Your task to perform on an android device: open app "HBO Max: Stream TV & Movies" Image 0: 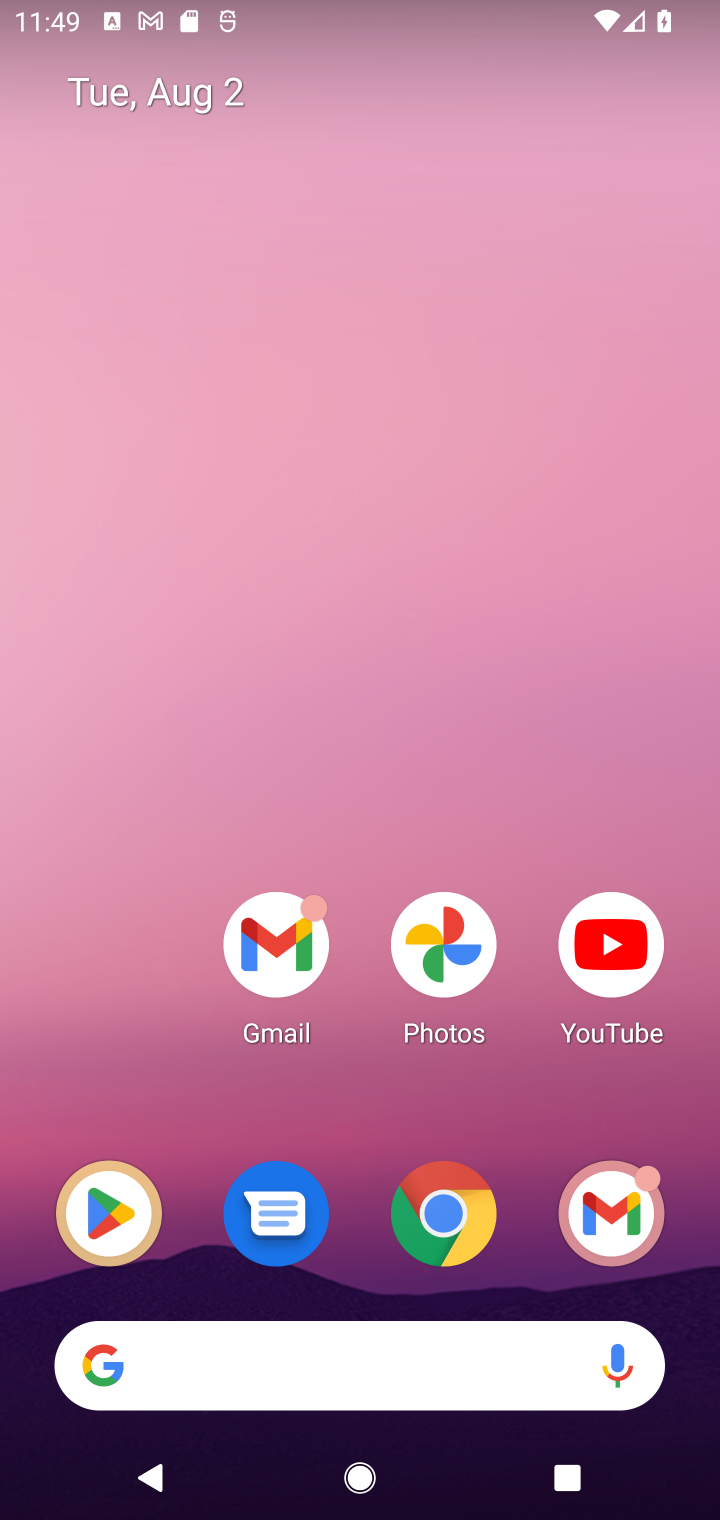
Step 0: click (86, 1210)
Your task to perform on an android device: open app "HBO Max: Stream TV & Movies" Image 1: 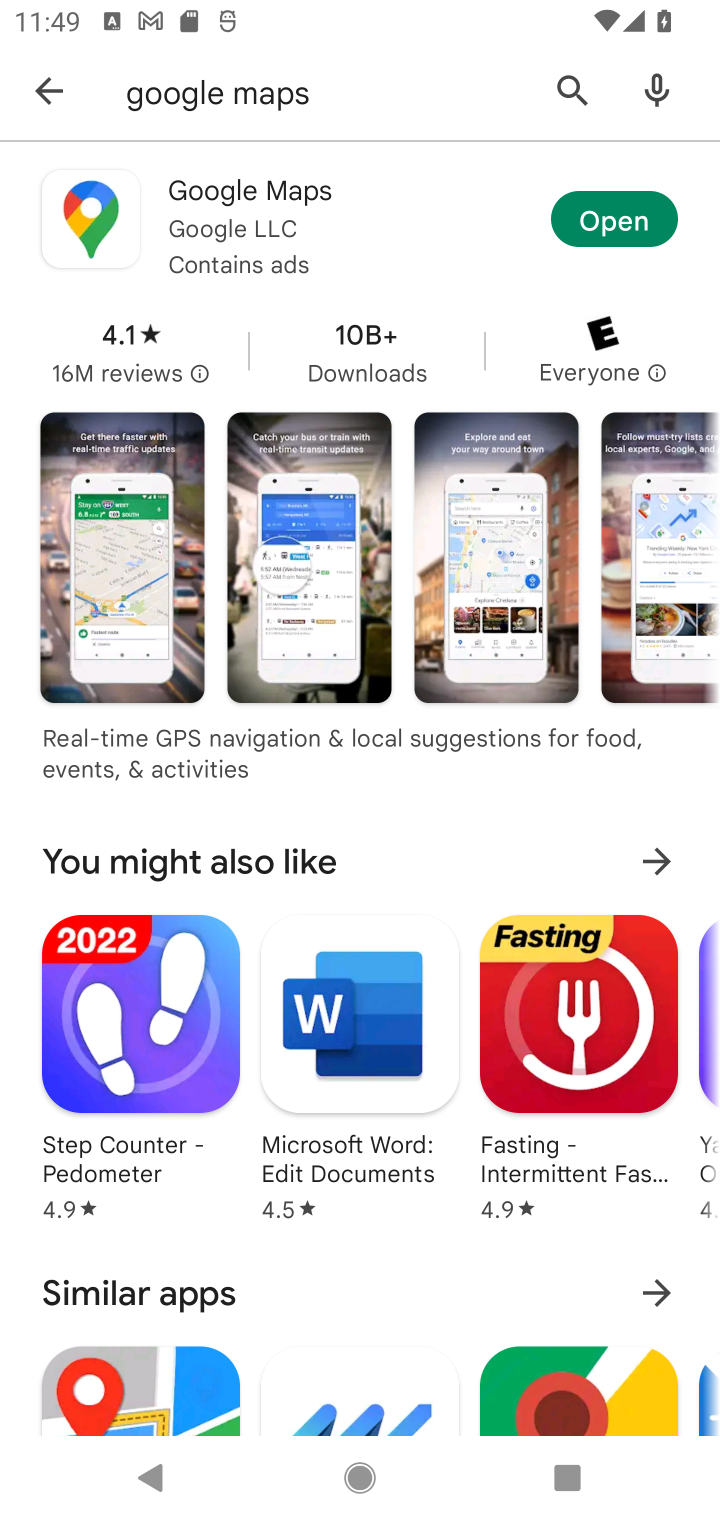
Step 1: click (40, 88)
Your task to perform on an android device: open app "HBO Max: Stream TV & Movies" Image 2: 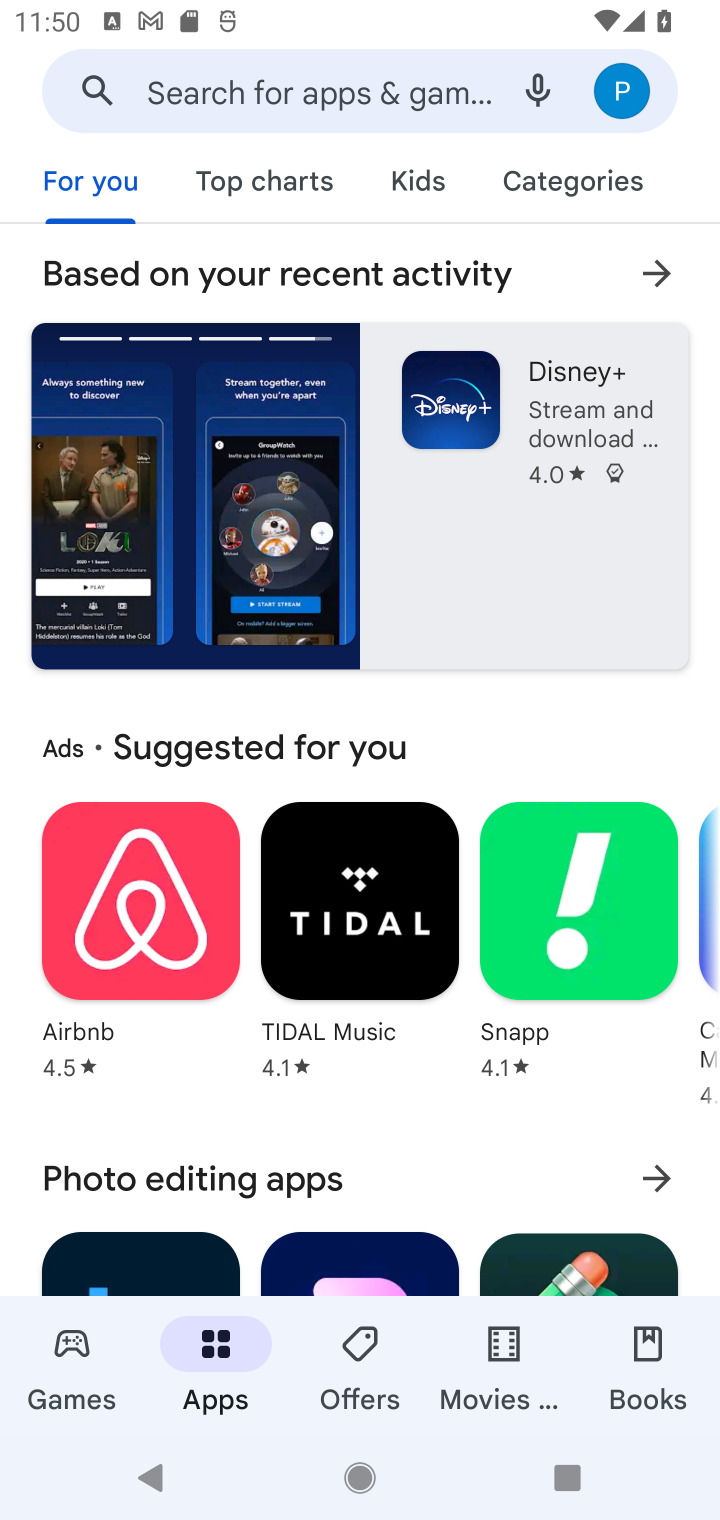
Step 2: click (235, 97)
Your task to perform on an android device: open app "HBO Max: Stream TV & Movies" Image 3: 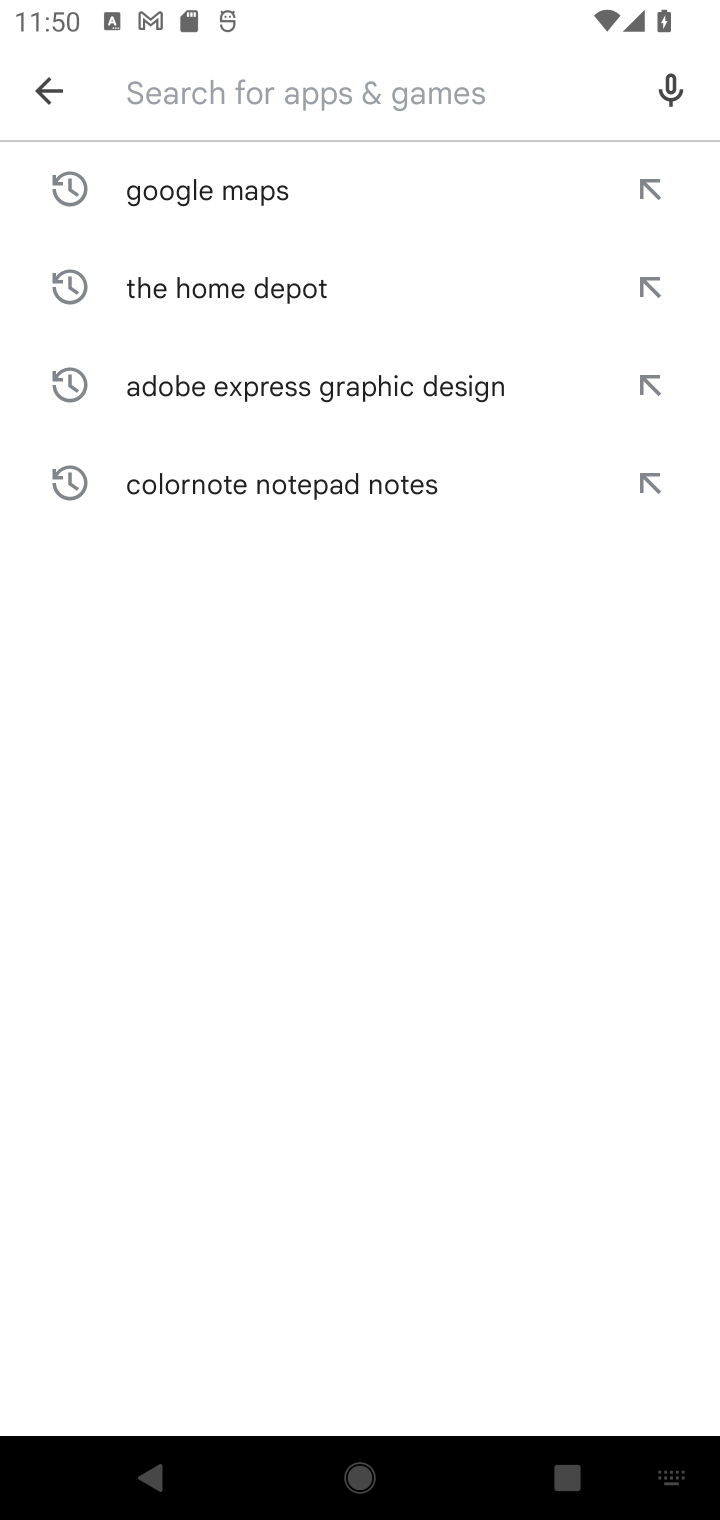
Step 3: type "HBO Max: Stream TV & Movies"
Your task to perform on an android device: open app "HBO Max: Stream TV & Movies" Image 4: 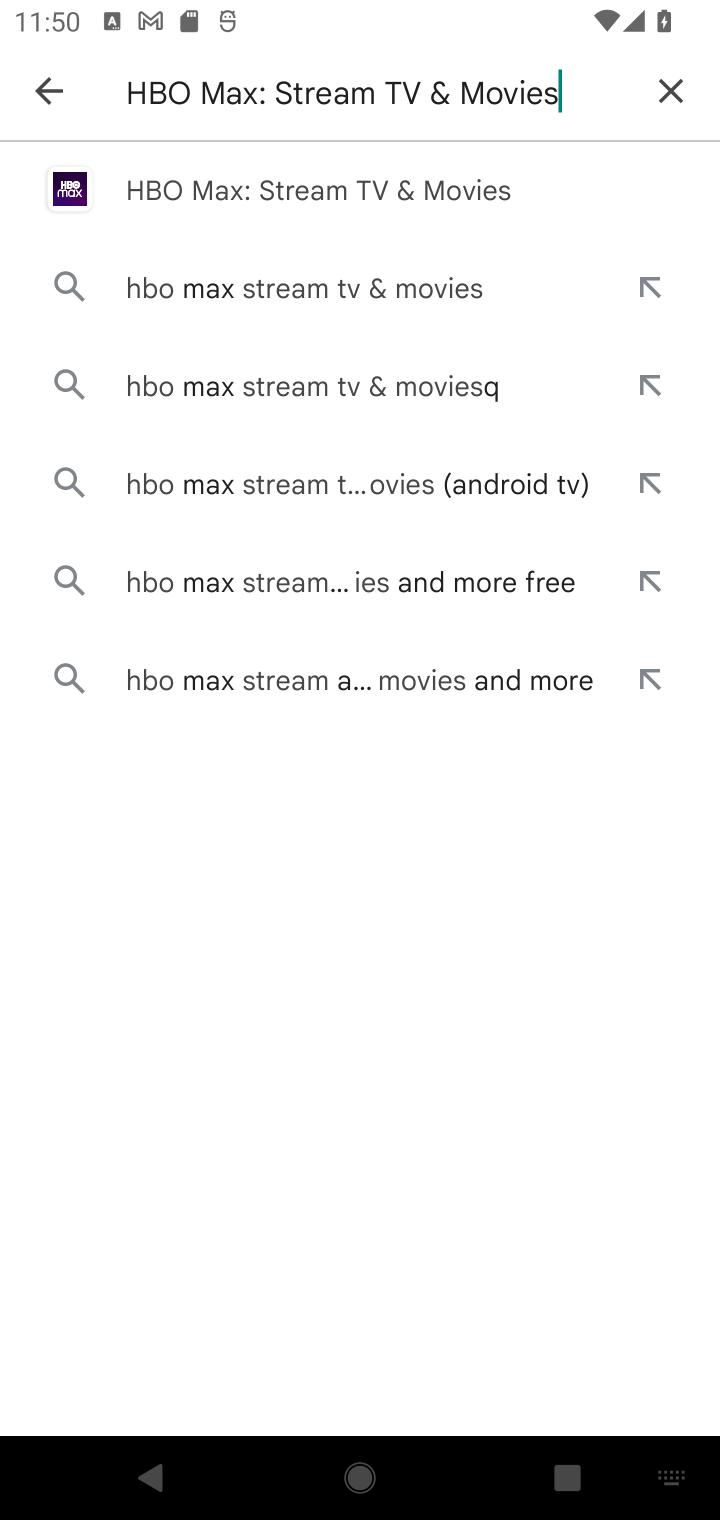
Step 4: click (284, 186)
Your task to perform on an android device: open app "HBO Max: Stream TV & Movies" Image 5: 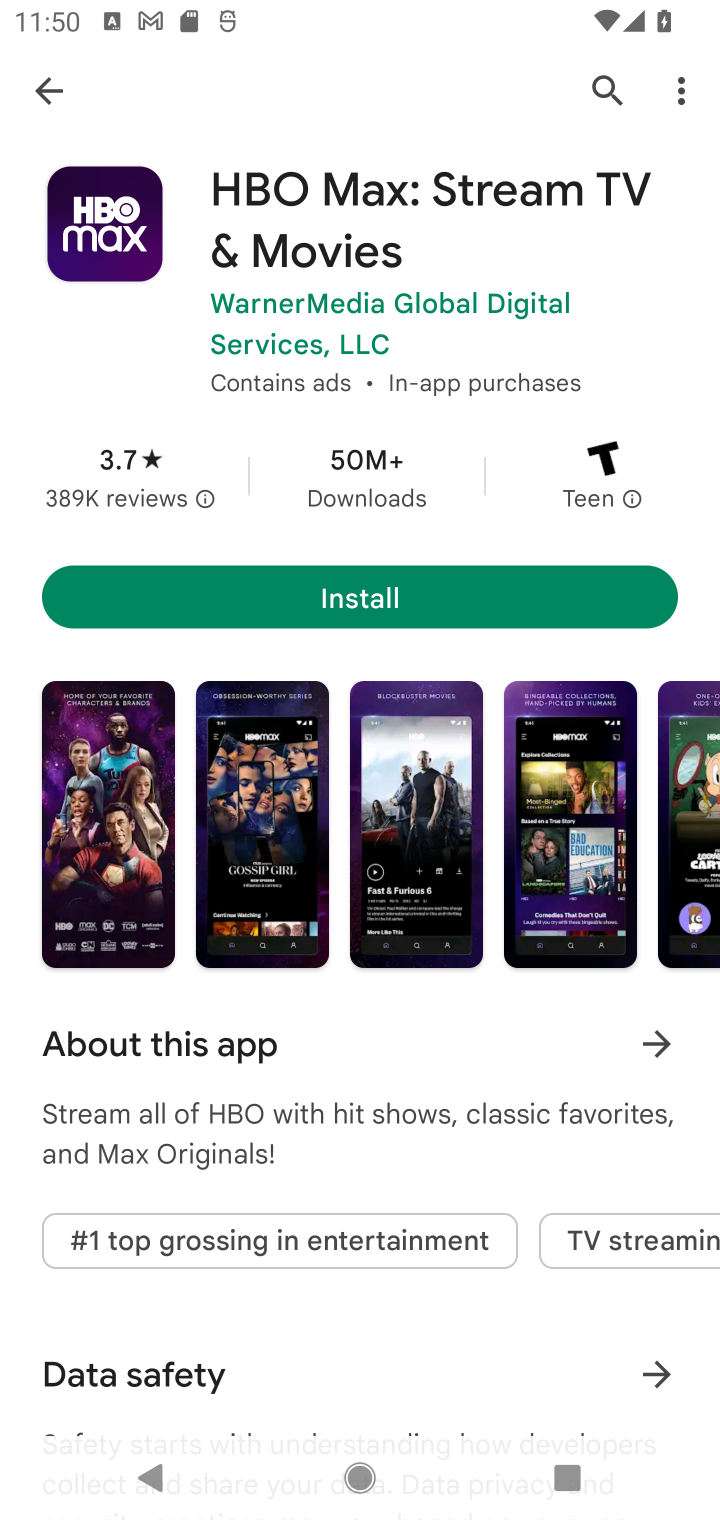
Step 5: click (386, 601)
Your task to perform on an android device: open app "HBO Max: Stream TV & Movies" Image 6: 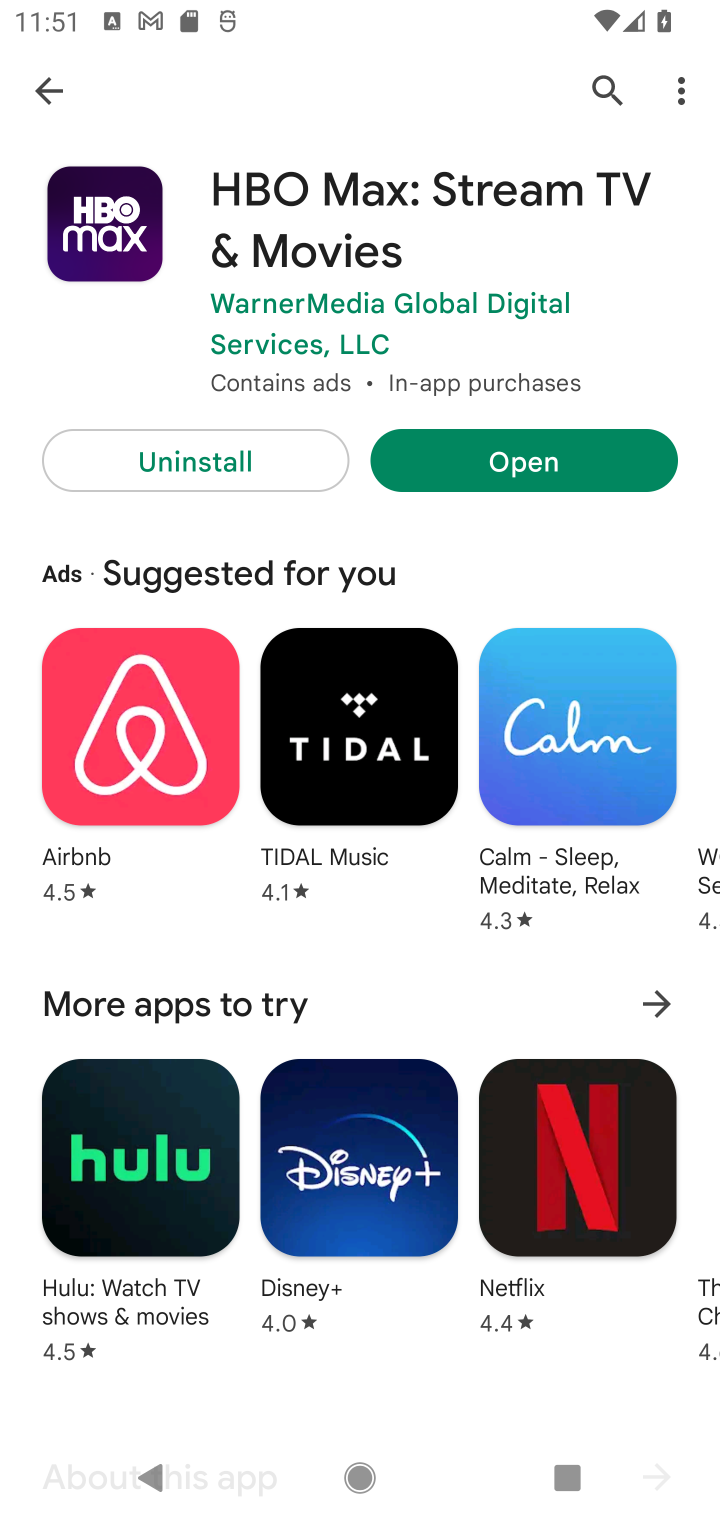
Step 6: click (517, 447)
Your task to perform on an android device: open app "HBO Max: Stream TV & Movies" Image 7: 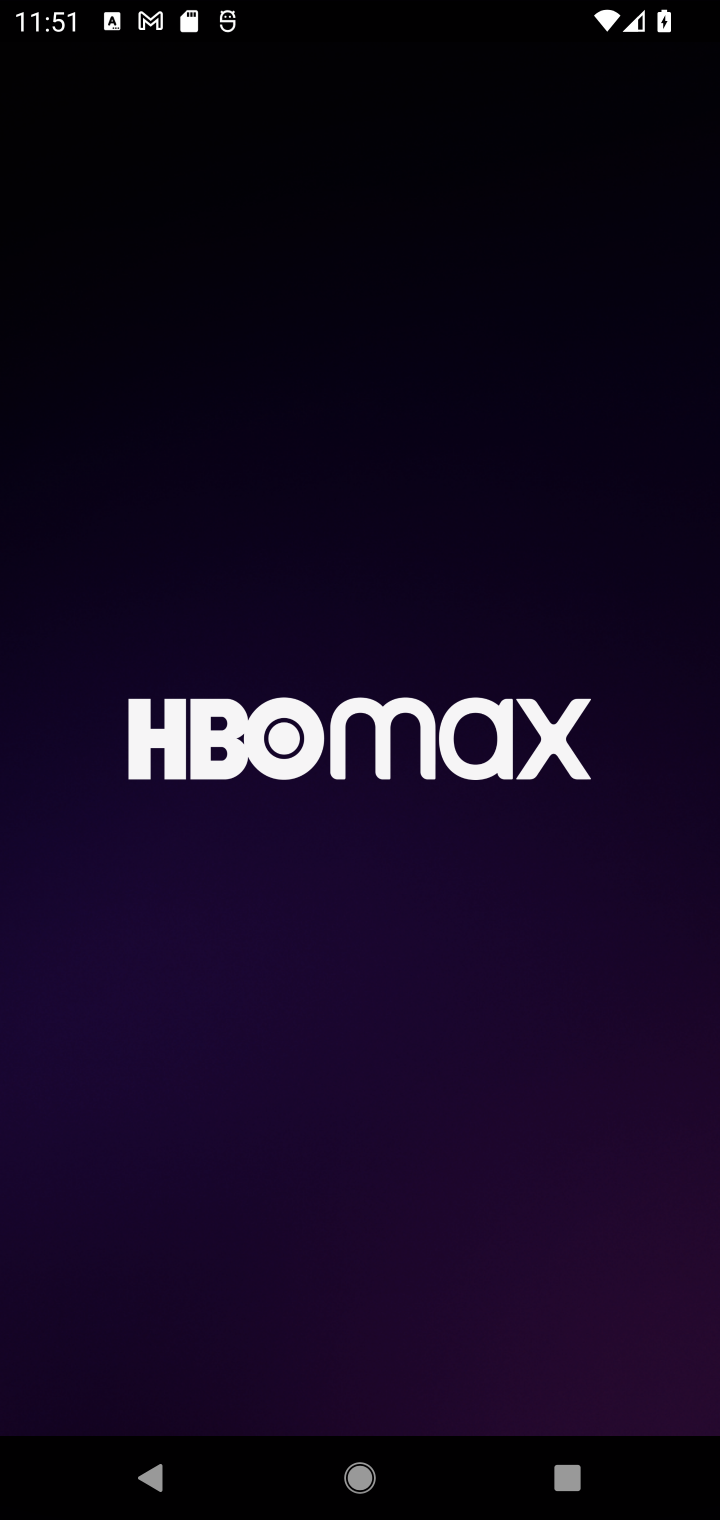
Step 7: task complete